Your task to perform on an android device: Go to Yahoo.com Image 0: 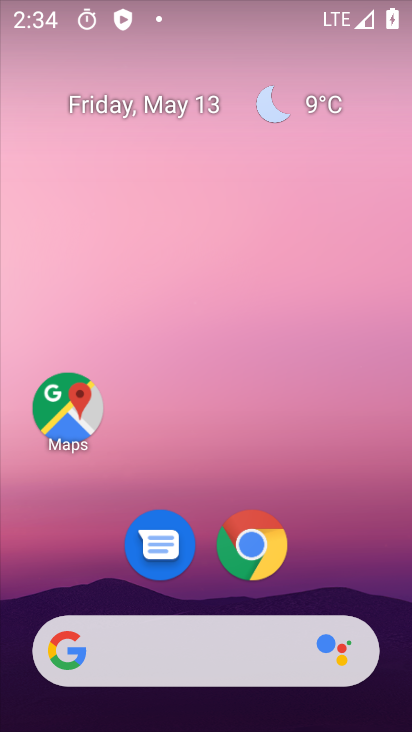
Step 0: drag from (331, 555) to (346, 120)
Your task to perform on an android device: Go to Yahoo.com Image 1: 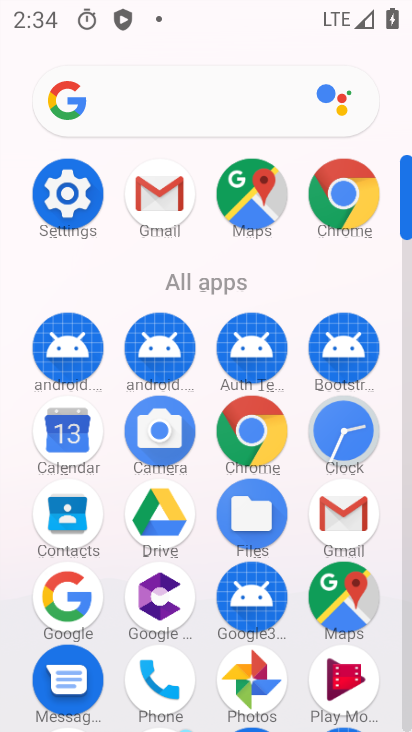
Step 1: click (260, 436)
Your task to perform on an android device: Go to Yahoo.com Image 2: 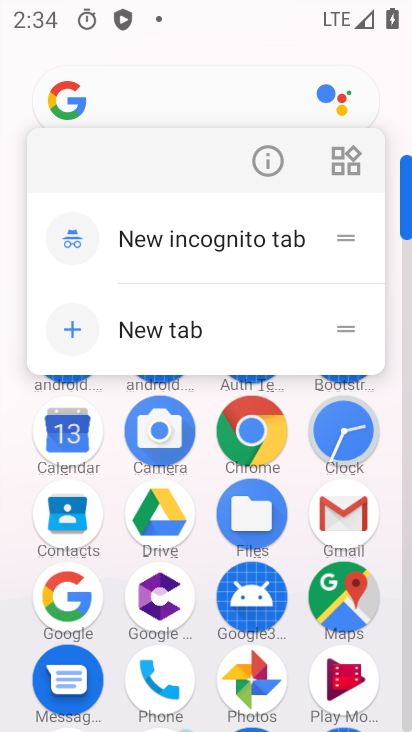
Step 2: click (216, 100)
Your task to perform on an android device: Go to Yahoo.com Image 3: 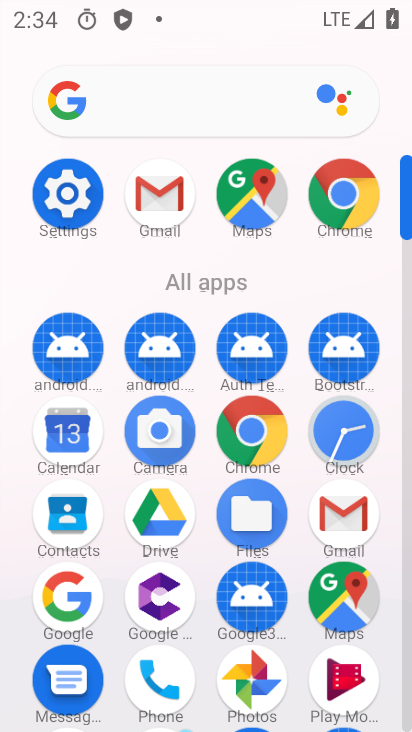
Step 3: click (239, 419)
Your task to perform on an android device: Go to Yahoo.com Image 4: 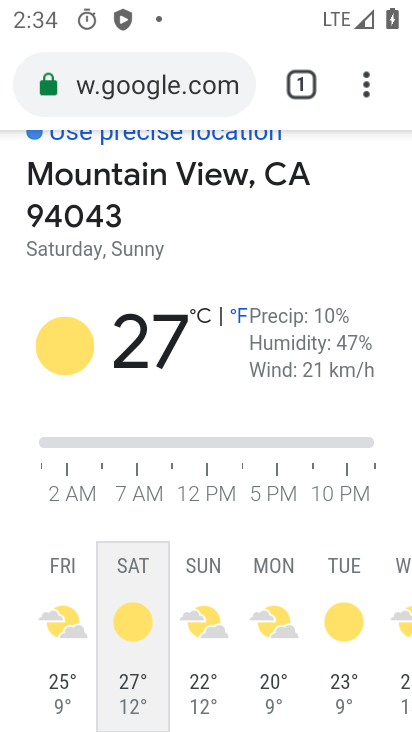
Step 4: click (177, 84)
Your task to perform on an android device: Go to Yahoo.com Image 5: 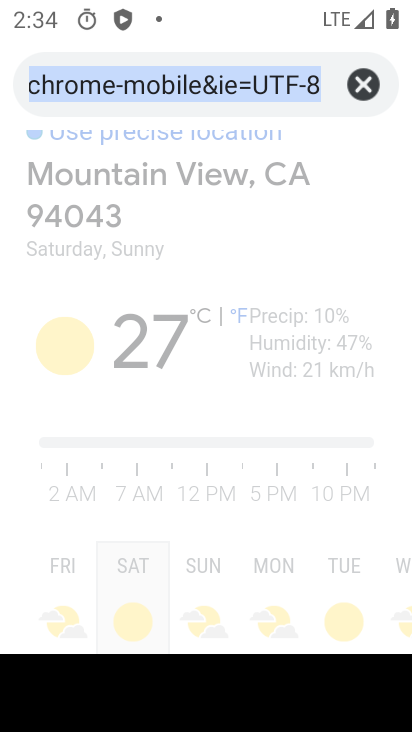
Step 5: click (357, 87)
Your task to perform on an android device: Go to Yahoo.com Image 6: 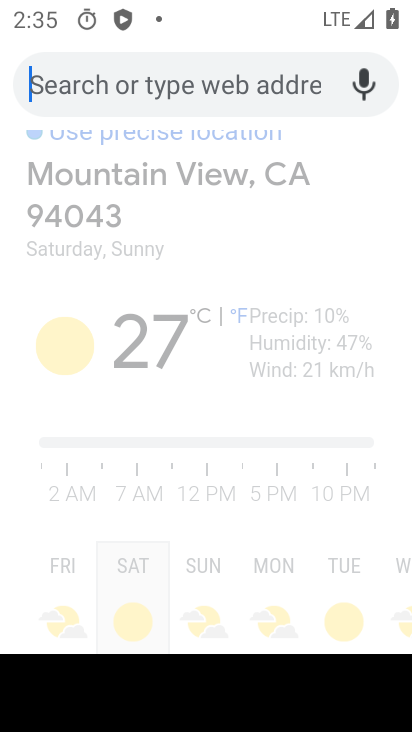
Step 6: type "Yahoo.com"
Your task to perform on an android device: Go to Yahoo.com Image 7: 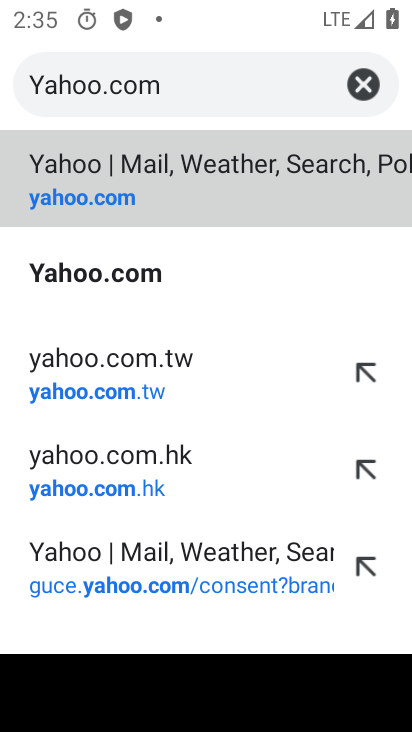
Step 7: click (94, 197)
Your task to perform on an android device: Go to Yahoo.com Image 8: 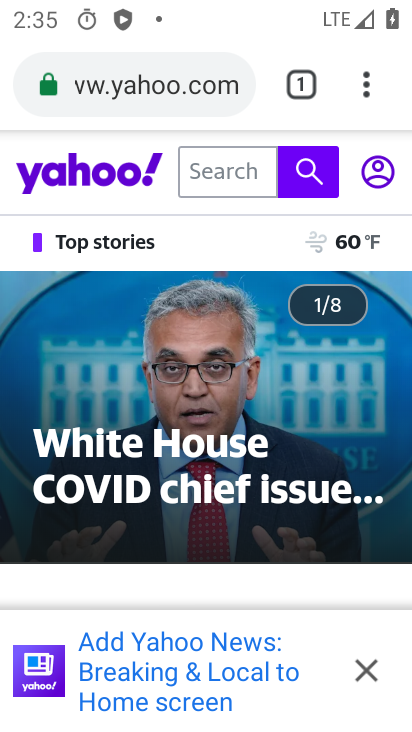
Step 8: task complete